Your task to perform on an android device: open app "Google Translate" (install if not already installed) Image 0: 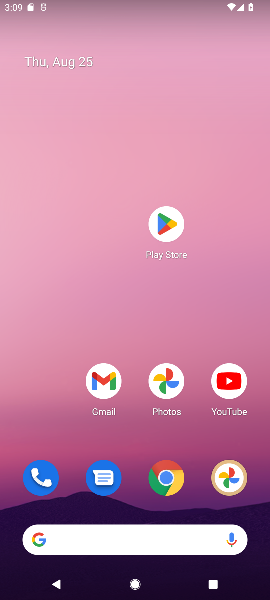
Step 0: click (162, 224)
Your task to perform on an android device: open app "Google Translate" (install if not already installed) Image 1: 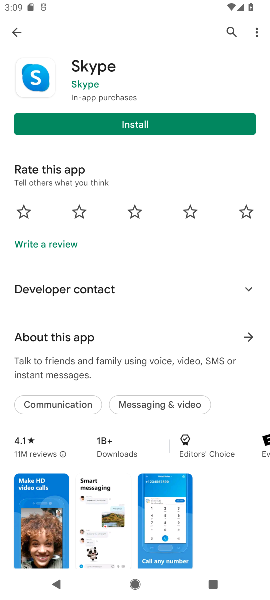
Step 1: click (228, 27)
Your task to perform on an android device: open app "Google Translate" (install if not already installed) Image 2: 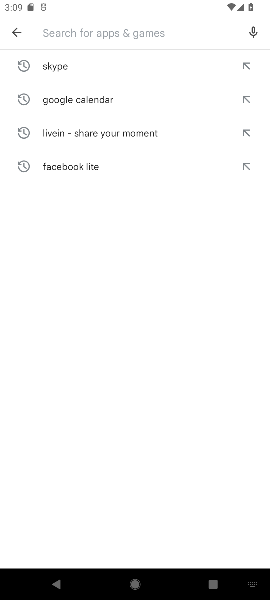
Step 2: type "Google Translate"
Your task to perform on an android device: open app "Google Translate" (install if not already installed) Image 3: 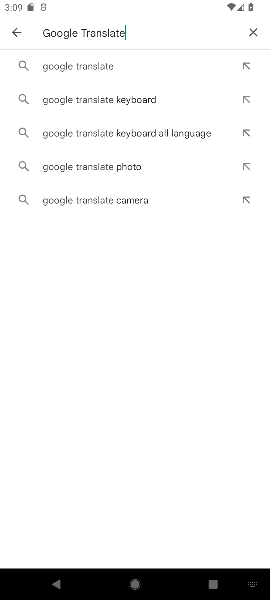
Step 3: click (61, 66)
Your task to perform on an android device: open app "Google Translate" (install if not already installed) Image 4: 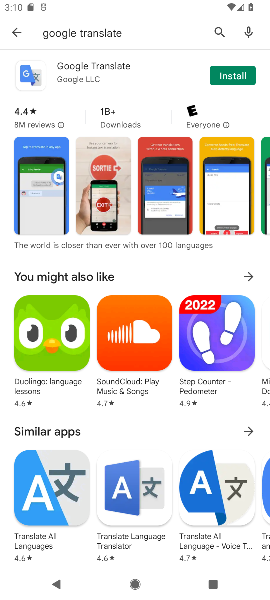
Step 4: click (240, 74)
Your task to perform on an android device: open app "Google Translate" (install if not already installed) Image 5: 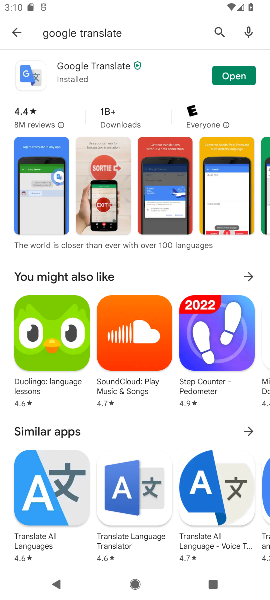
Step 5: click (241, 77)
Your task to perform on an android device: open app "Google Translate" (install if not already installed) Image 6: 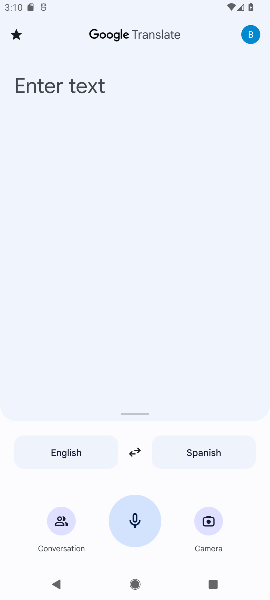
Step 6: task complete